Your task to perform on an android device: open app "Truecaller" (install if not already installed) Image 0: 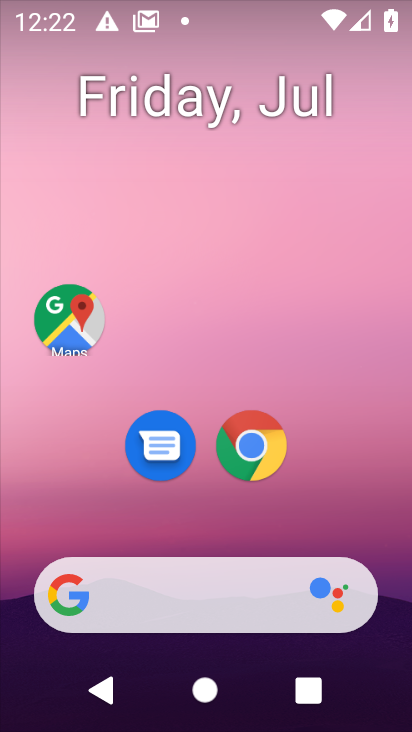
Step 0: drag from (233, 510) to (238, 2)
Your task to perform on an android device: open app "Truecaller" (install if not already installed) Image 1: 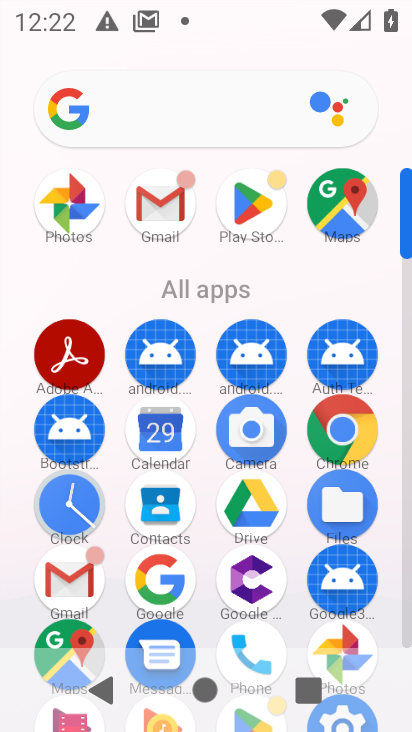
Step 1: click (243, 210)
Your task to perform on an android device: open app "Truecaller" (install if not already installed) Image 2: 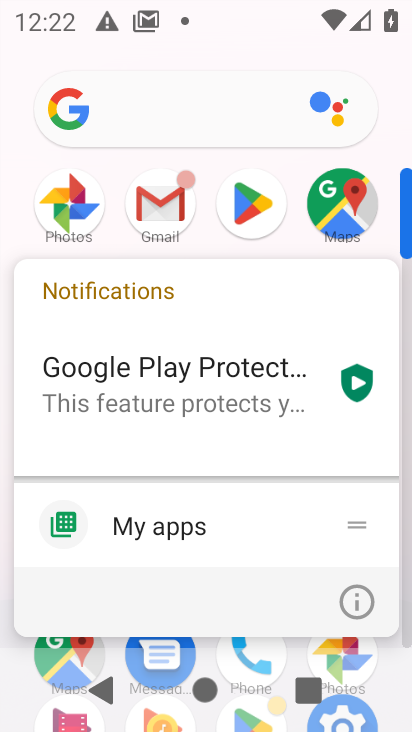
Step 2: click (243, 210)
Your task to perform on an android device: open app "Truecaller" (install if not already installed) Image 3: 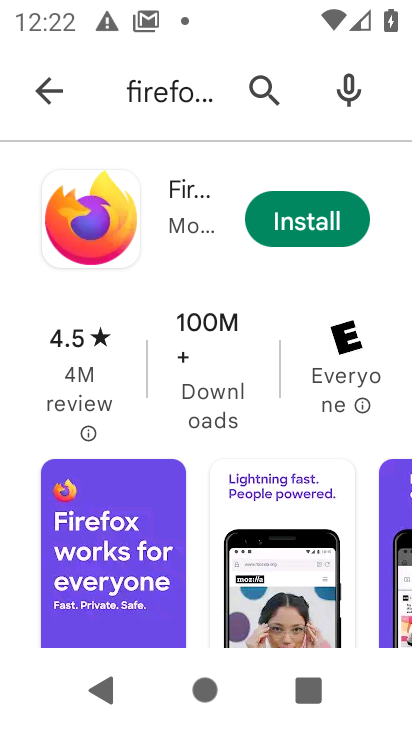
Step 3: click (167, 108)
Your task to perform on an android device: open app "Truecaller" (install if not already installed) Image 4: 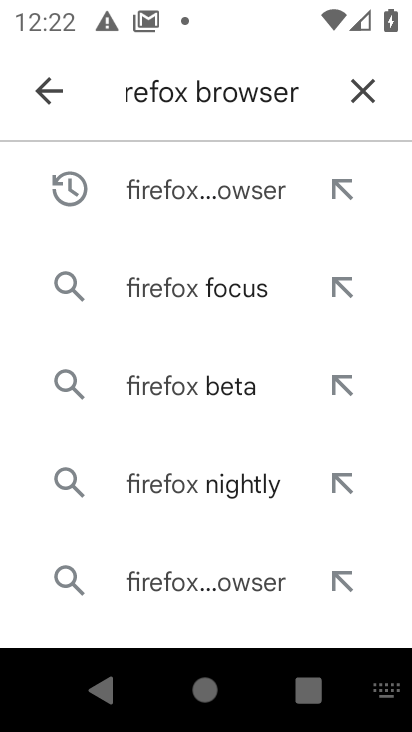
Step 4: click (370, 89)
Your task to perform on an android device: open app "Truecaller" (install if not already installed) Image 5: 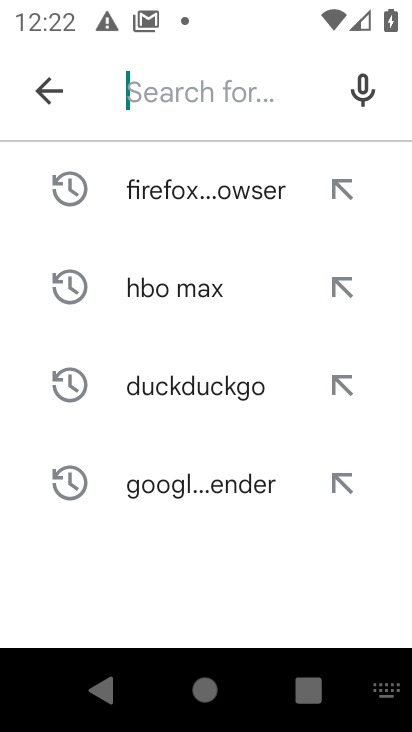
Step 5: type "Truecaller"
Your task to perform on an android device: open app "Truecaller" (install if not already installed) Image 6: 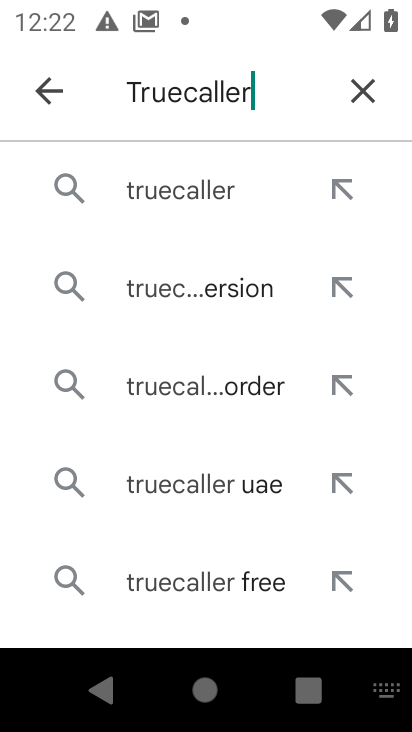
Step 6: click (190, 206)
Your task to perform on an android device: open app "Truecaller" (install if not already installed) Image 7: 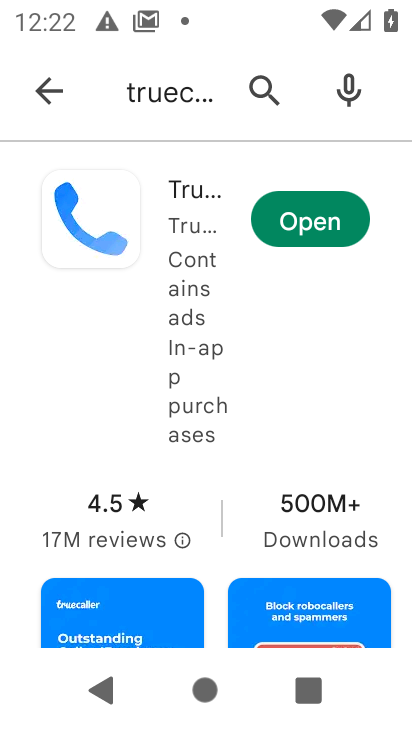
Step 7: click (288, 211)
Your task to perform on an android device: open app "Truecaller" (install if not already installed) Image 8: 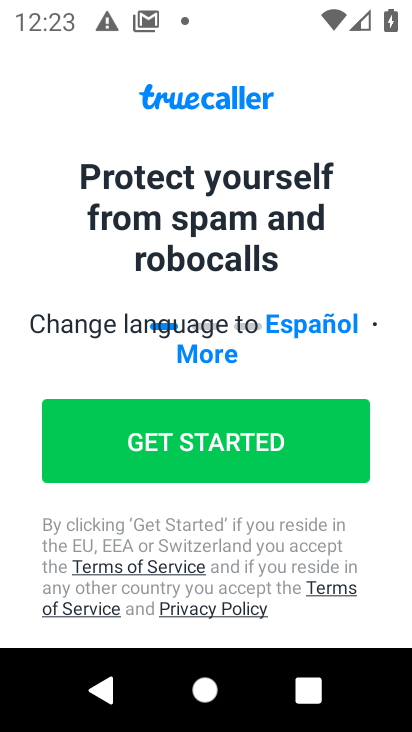
Step 8: task complete